Your task to perform on an android device: Open the phone app and click the voicemail tab. Image 0: 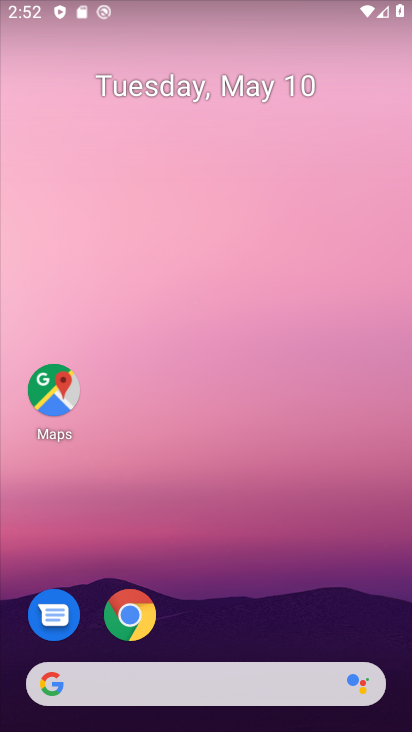
Step 0: drag from (239, 619) to (236, 103)
Your task to perform on an android device: Open the phone app and click the voicemail tab. Image 1: 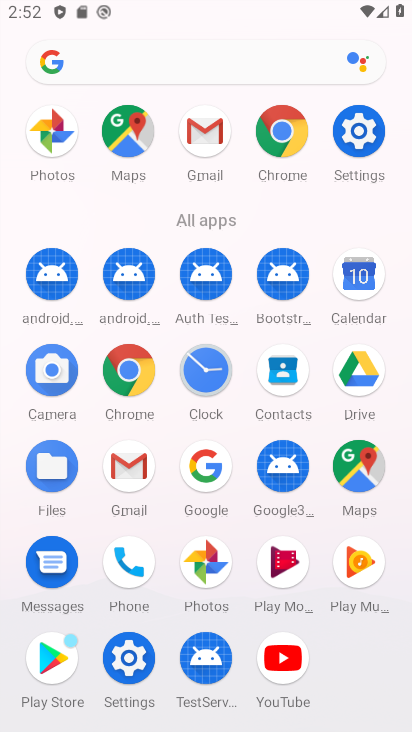
Step 1: click (121, 579)
Your task to perform on an android device: Open the phone app and click the voicemail tab. Image 2: 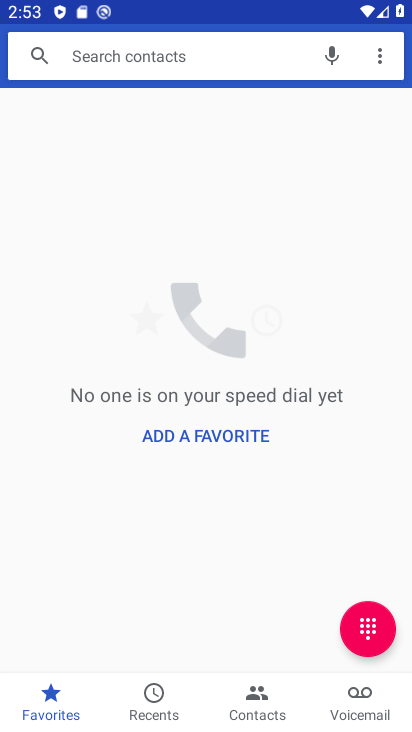
Step 2: click (366, 695)
Your task to perform on an android device: Open the phone app and click the voicemail tab. Image 3: 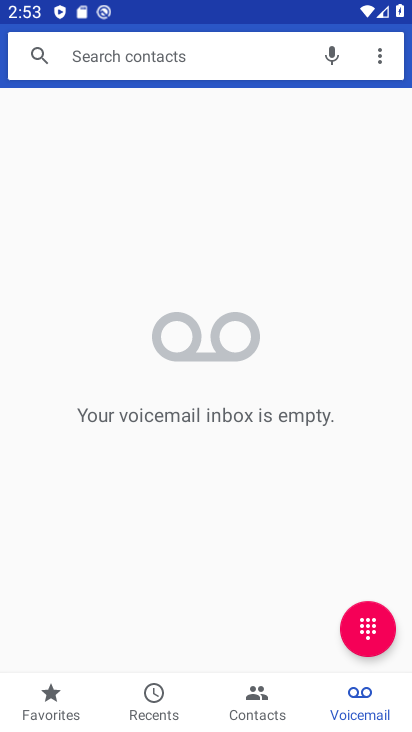
Step 3: task complete